Your task to perform on an android device: turn pop-ups off in chrome Image 0: 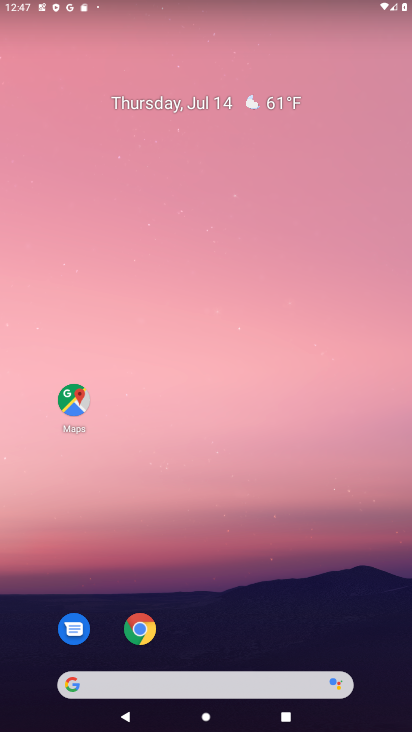
Step 0: click (140, 630)
Your task to perform on an android device: turn pop-ups off in chrome Image 1: 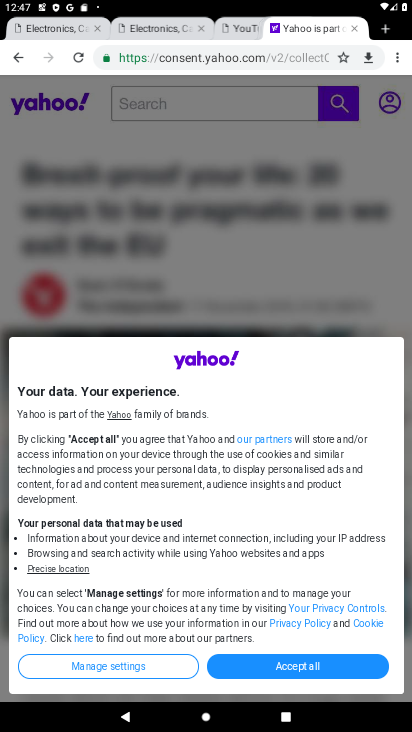
Step 1: click (407, 52)
Your task to perform on an android device: turn pop-ups off in chrome Image 2: 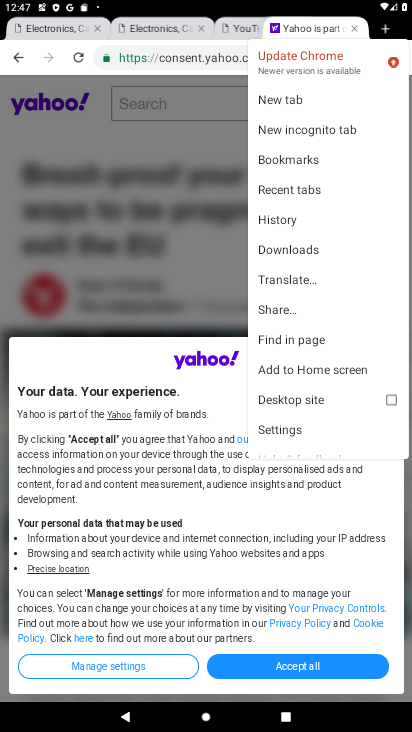
Step 2: click (270, 422)
Your task to perform on an android device: turn pop-ups off in chrome Image 3: 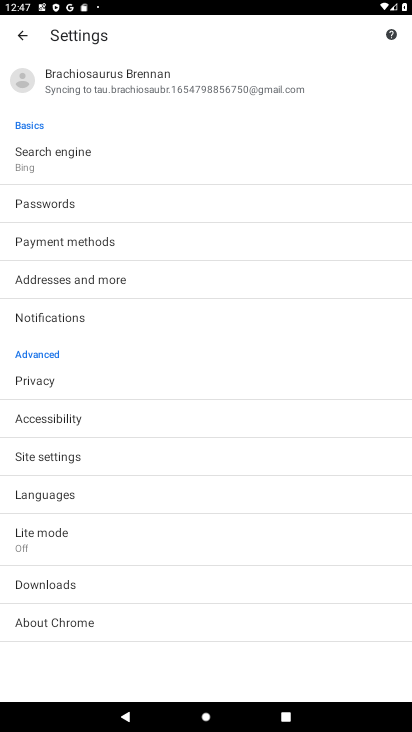
Step 3: click (65, 469)
Your task to perform on an android device: turn pop-ups off in chrome Image 4: 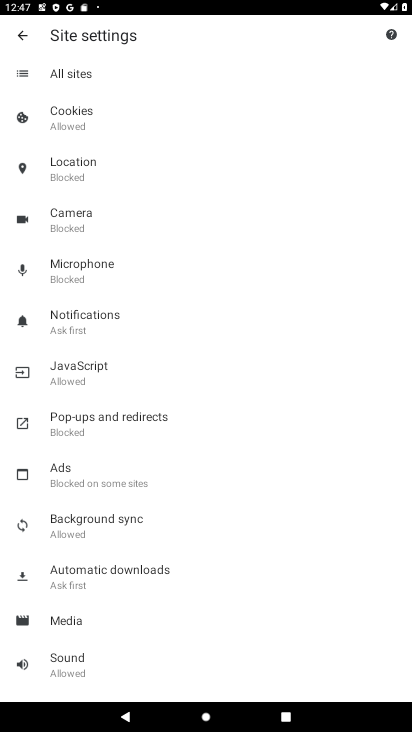
Step 4: click (145, 423)
Your task to perform on an android device: turn pop-ups off in chrome Image 5: 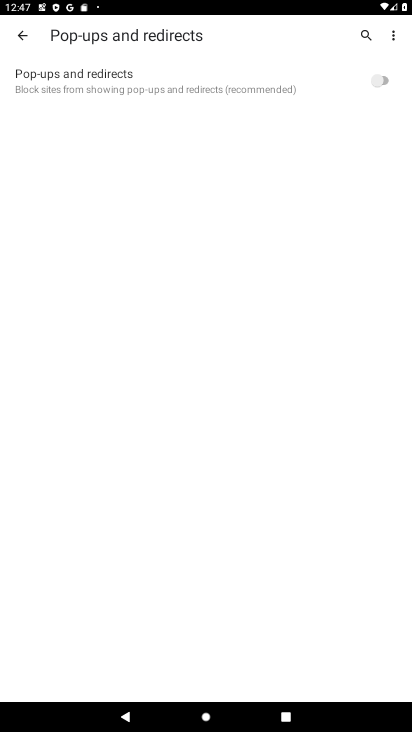
Step 5: task complete